Your task to perform on an android device: turn on location history Image 0: 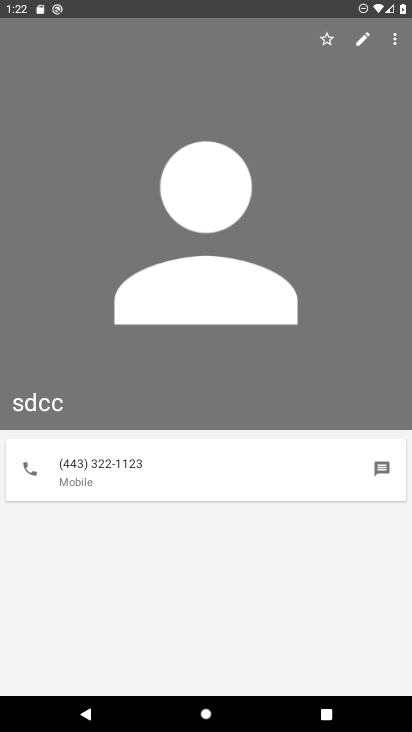
Step 0: press home button
Your task to perform on an android device: turn on location history Image 1: 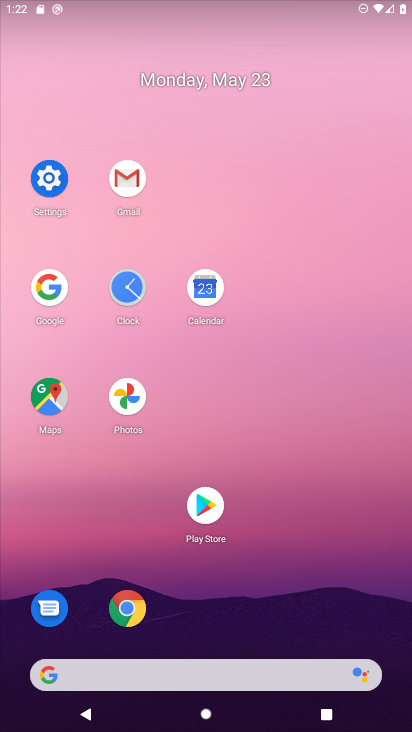
Step 1: click (59, 188)
Your task to perform on an android device: turn on location history Image 2: 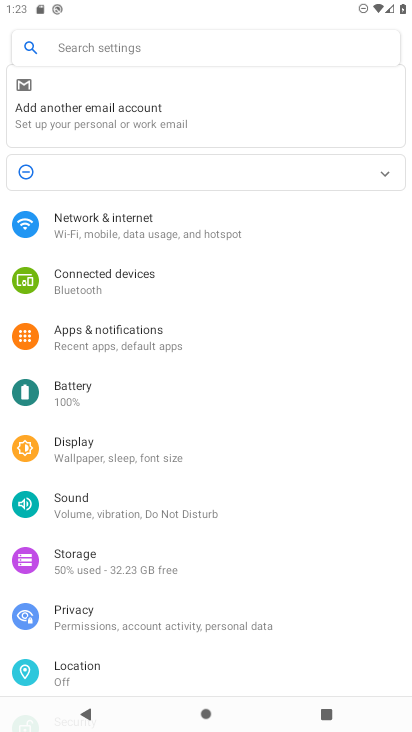
Step 2: click (125, 668)
Your task to perform on an android device: turn on location history Image 3: 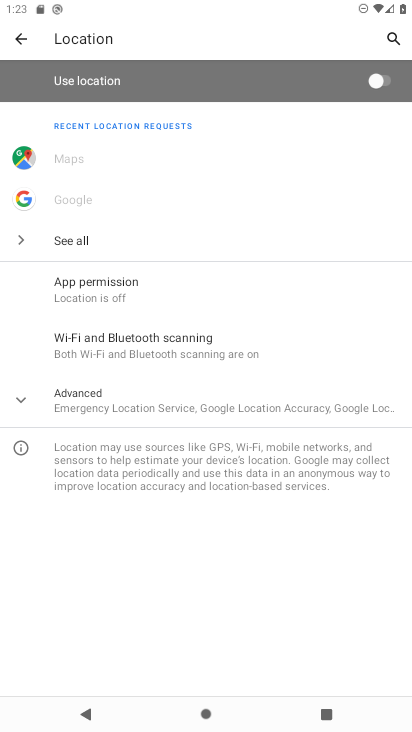
Step 3: click (83, 406)
Your task to perform on an android device: turn on location history Image 4: 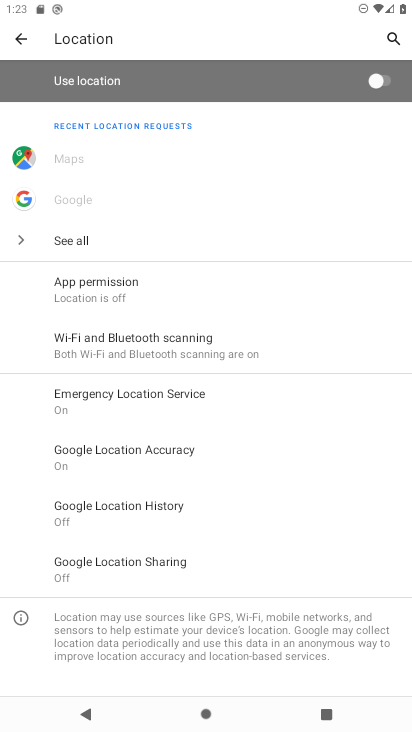
Step 4: click (189, 507)
Your task to perform on an android device: turn on location history Image 5: 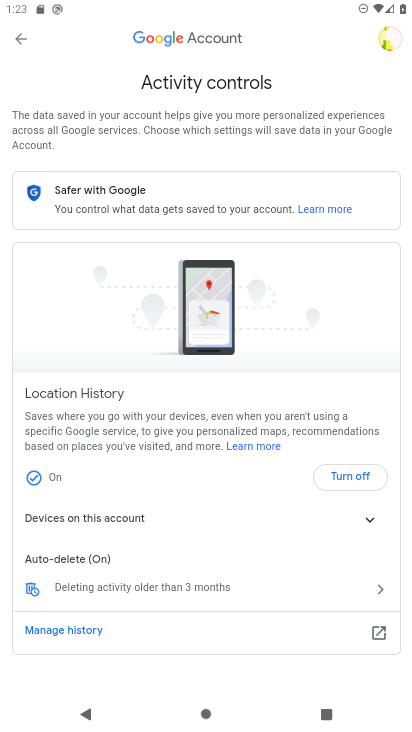
Step 5: task complete